Your task to perform on an android device: Go to location settings Image 0: 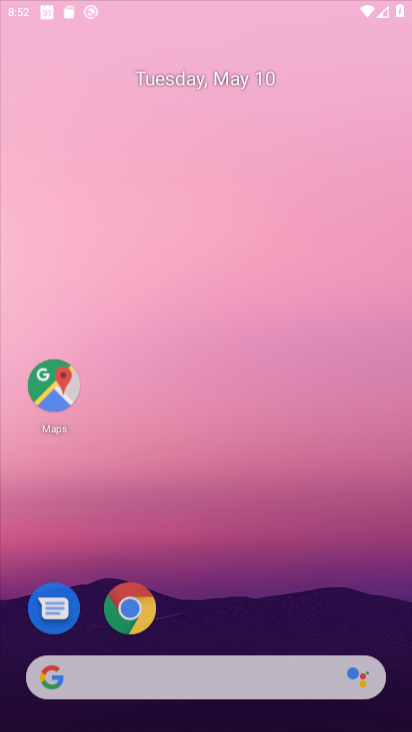
Step 0: click (253, 119)
Your task to perform on an android device: Go to location settings Image 1: 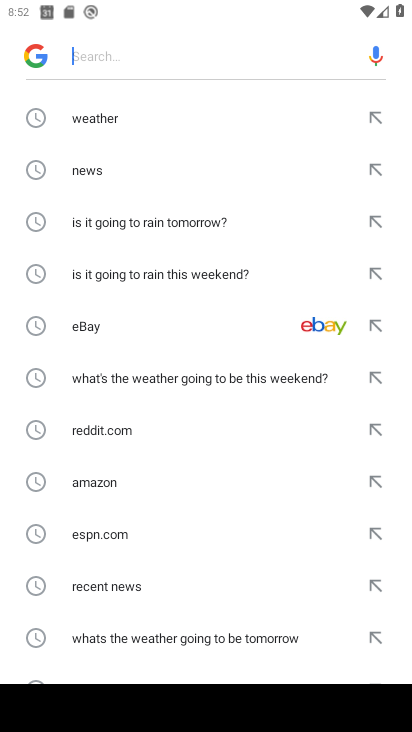
Step 1: press home button
Your task to perform on an android device: Go to location settings Image 2: 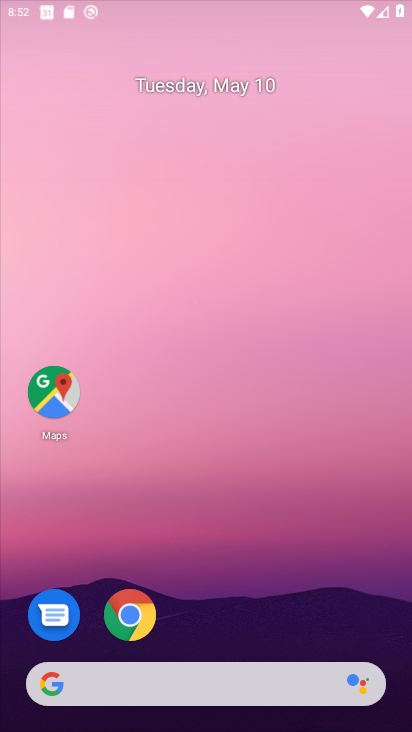
Step 2: drag from (197, 626) to (200, 256)
Your task to perform on an android device: Go to location settings Image 3: 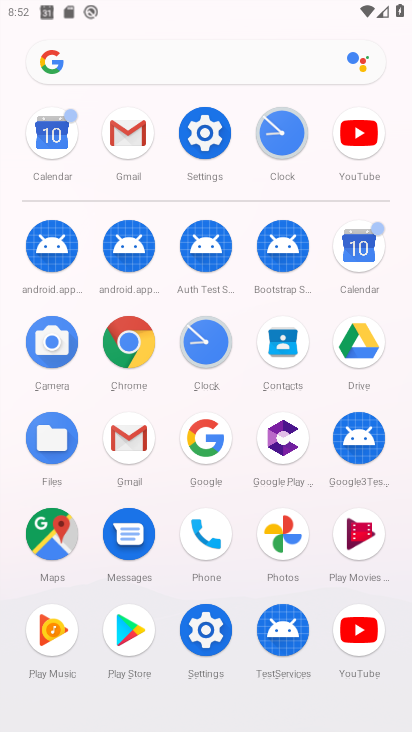
Step 3: click (198, 137)
Your task to perform on an android device: Go to location settings Image 4: 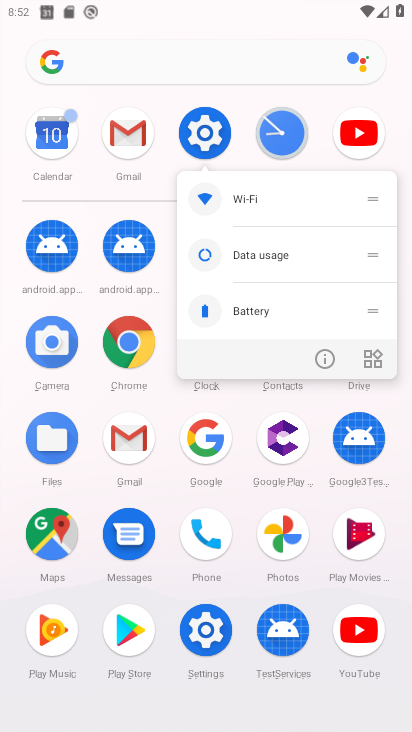
Step 4: click (327, 355)
Your task to perform on an android device: Go to location settings Image 5: 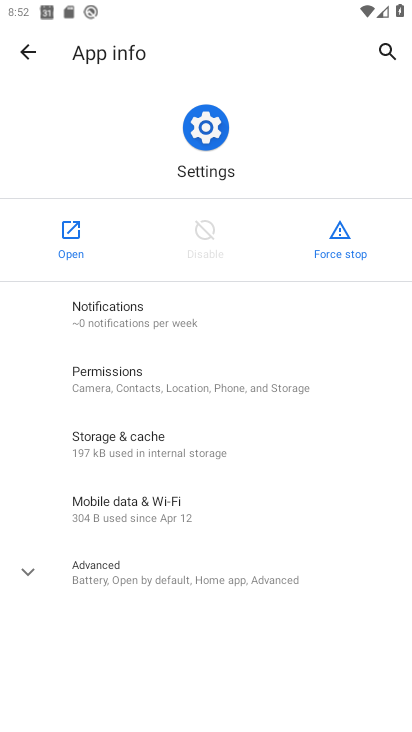
Step 5: click (58, 254)
Your task to perform on an android device: Go to location settings Image 6: 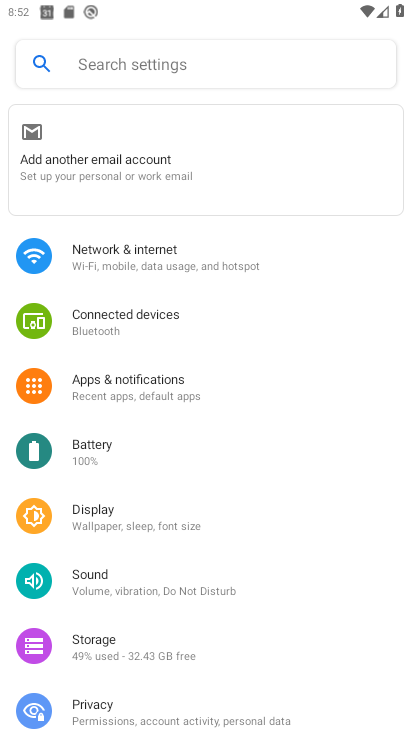
Step 6: drag from (210, 610) to (215, 199)
Your task to perform on an android device: Go to location settings Image 7: 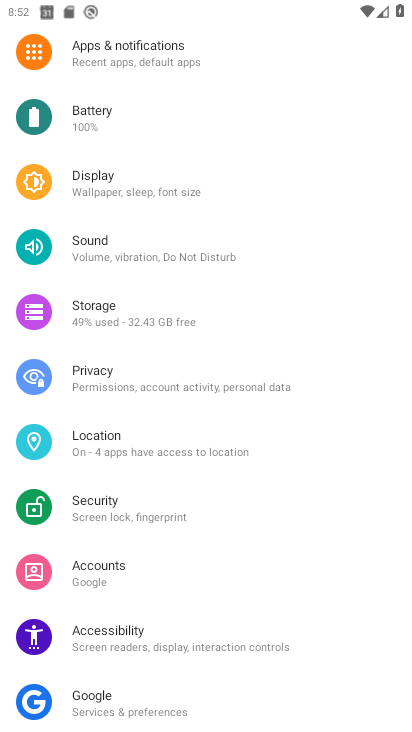
Step 7: drag from (216, 613) to (225, 317)
Your task to perform on an android device: Go to location settings Image 8: 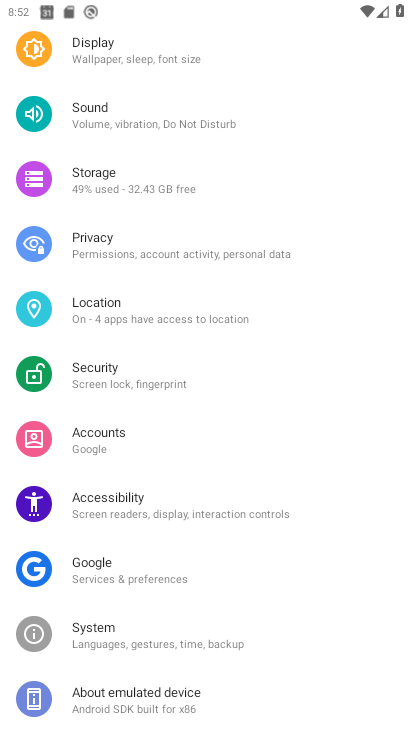
Step 8: click (158, 308)
Your task to perform on an android device: Go to location settings Image 9: 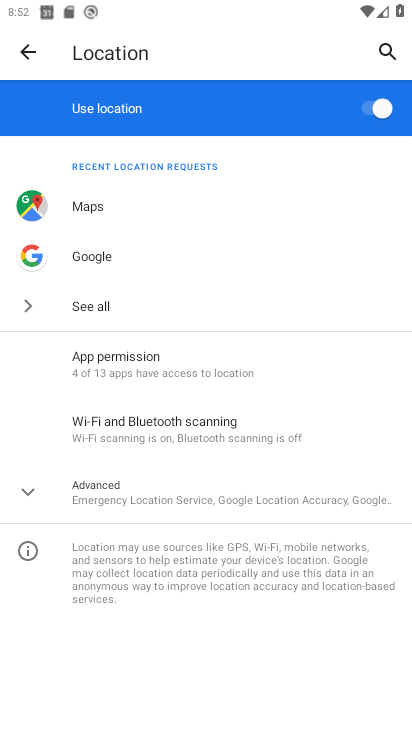
Step 9: click (147, 500)
Your task to perform on an android device: Go to location settings Image 10: 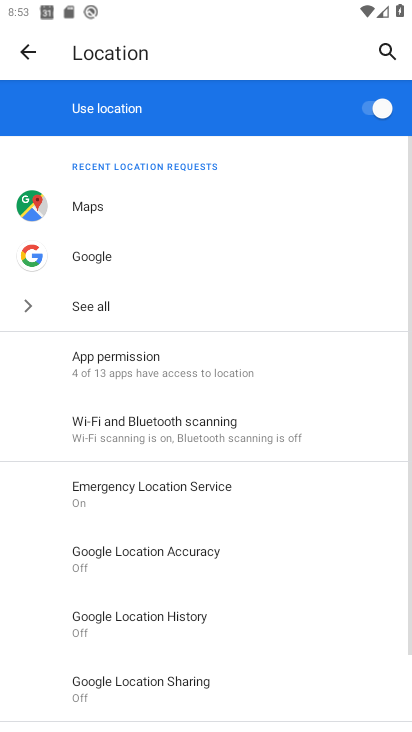
Step 10: task complete